Your task to perform on an android device: Open wifi settings Image 0: 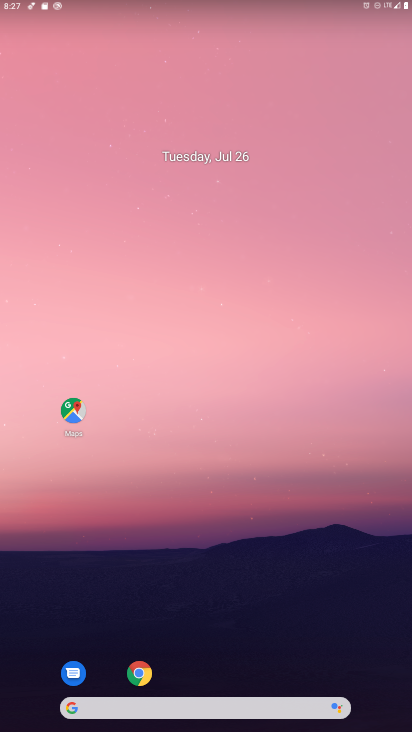
Step 0: drag from (290, 601) to (204, 2)
Your task to perform on an android device: Open wifi settings Image 1: 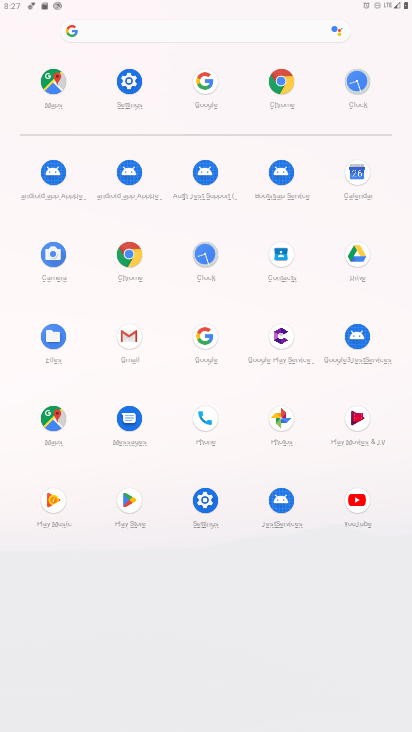
Step 1: click (195, 488)
Your task to perform on an android device: Open wifi settings Image 2: 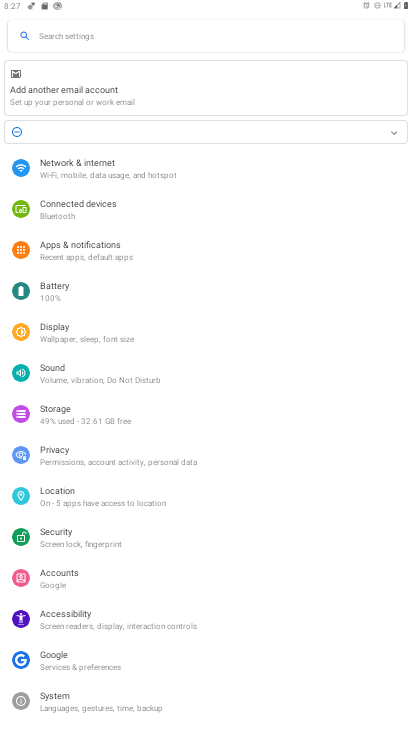
Step 2: click (107, 164)
Your task to perform on an android device: Open wifi settings Image 3: 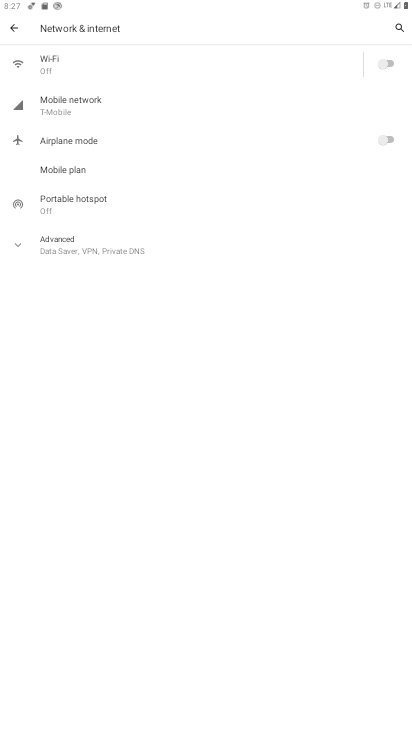
Step 3: click (243, 64)
Your task to perform on an android device: Open wifi settings Image 4: 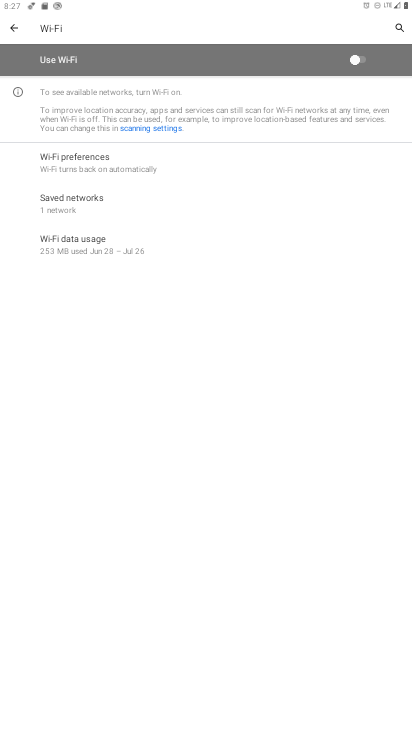
Step 4: task complete